Your task to perform on an android device: Go to Wikipedia Image 0: 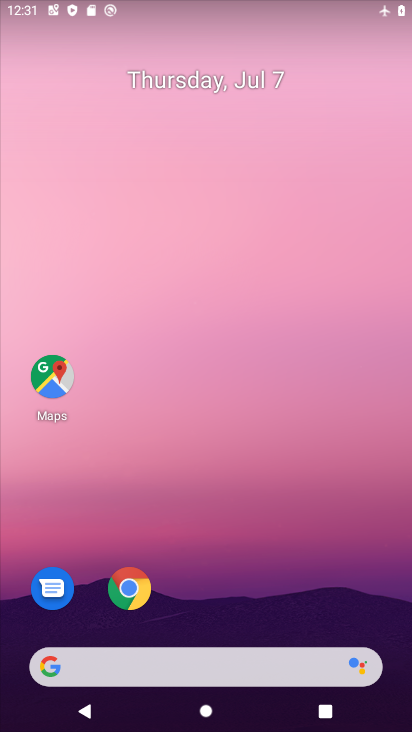
Step 0: drag from (186, 611) to (234, 36)
Your task to perform on an android device: Go to Wikipedia Image 1: 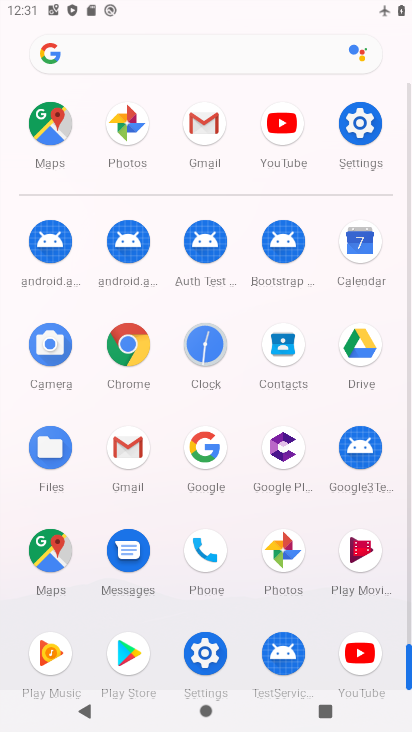
Step 1: click (111, 329)
Your task to perform on an android device: Go to Wikipedia Image 2: 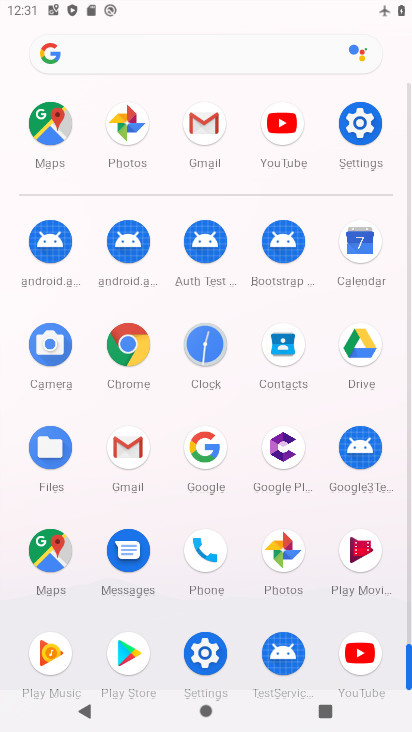
Step 2: click (111, 329)
Your task to perform on an android device: Go to Wikipedia Image 3: 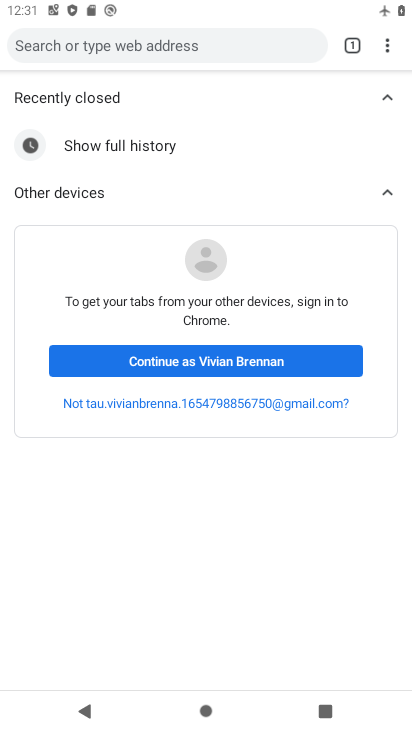
Step 3: click (388, 43)
Your task to perform on an android device: Go to Wikipedia Image 4: 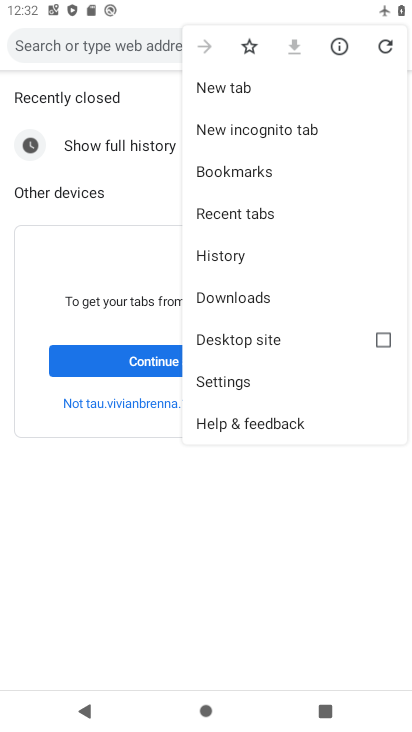
Step 4: click (239, 91)
Your task to perform on an android device: Go to Wikipedia Image 5: 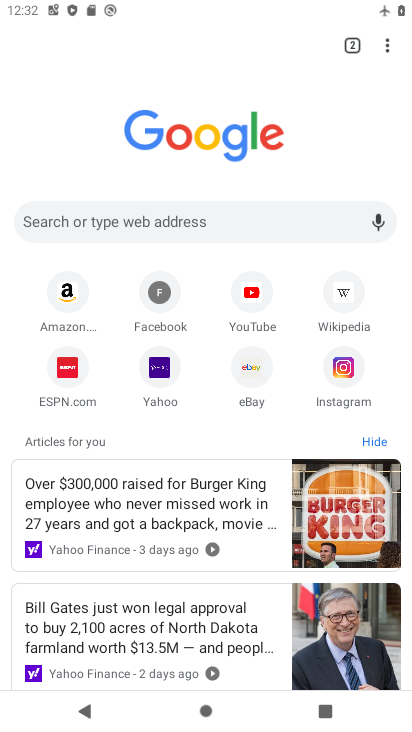
Step 5: click (338, 302)
Your task to perform on an android device: Go to Wikipedia Image 6: 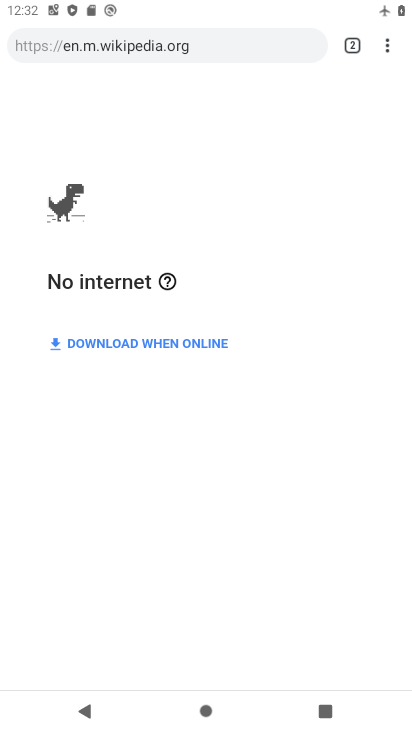
Step 6: task complete